Your task to perform on an android device: show emergency info Image 0: 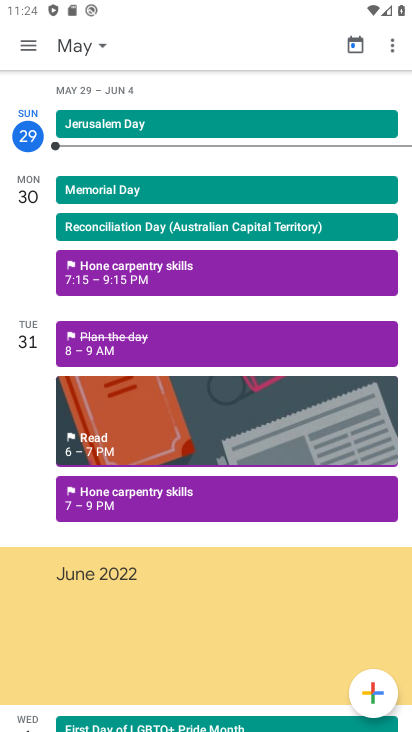
Step 0: press home button
Your task to perform on an android device: show emergency info Image 1: 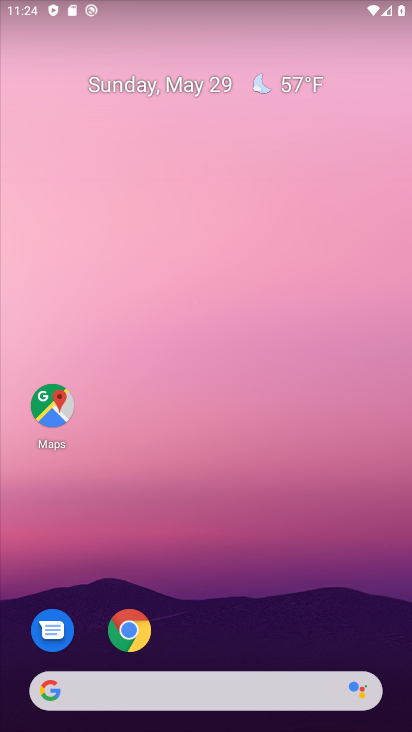
Step 1: drag from (254, 709) to (221, 151)
Your task to perform on an android device: show emergency info Image 2: 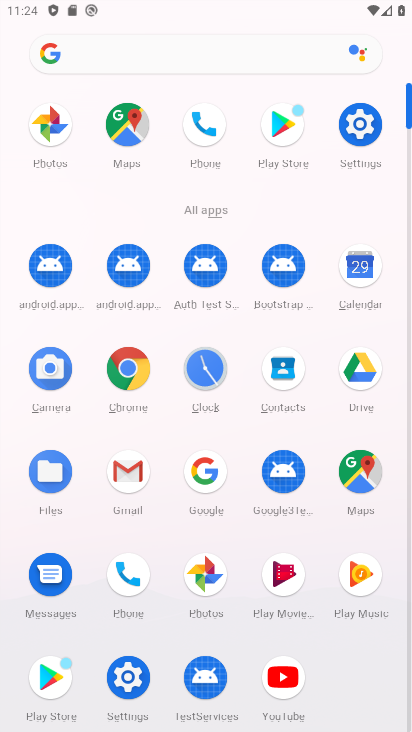
Step 2: click (339, 123)
Your task to perform on an android device: show emergency info Image 3: 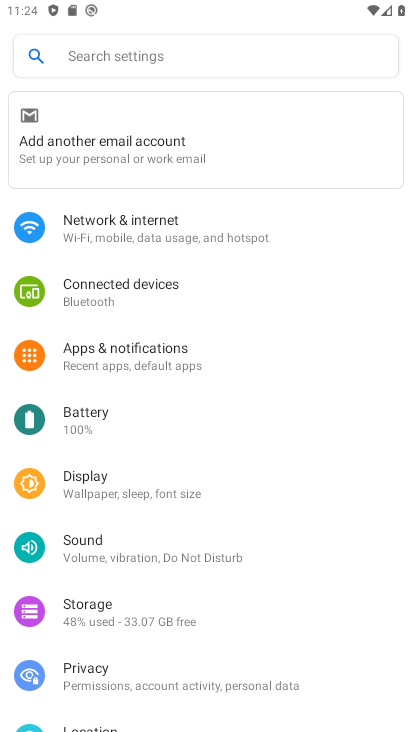
Step 3: click (108, 46)
Your task to perform on an android device: show emergency info Image 4: 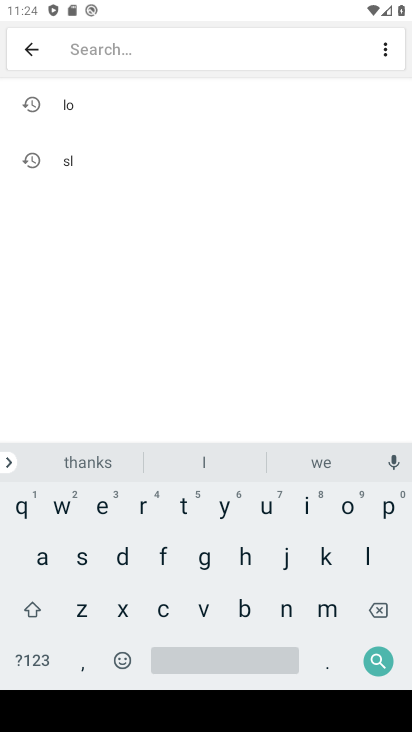
Step 4: click (101, 514)
Your task to perform on an android device: show emergency info Image 5: 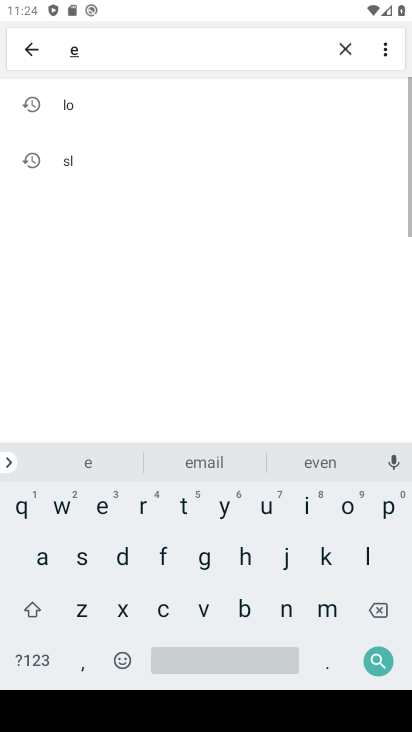
Step 5: click (322, 600)
Your task to perform on an android device: show emergency info Image 6: 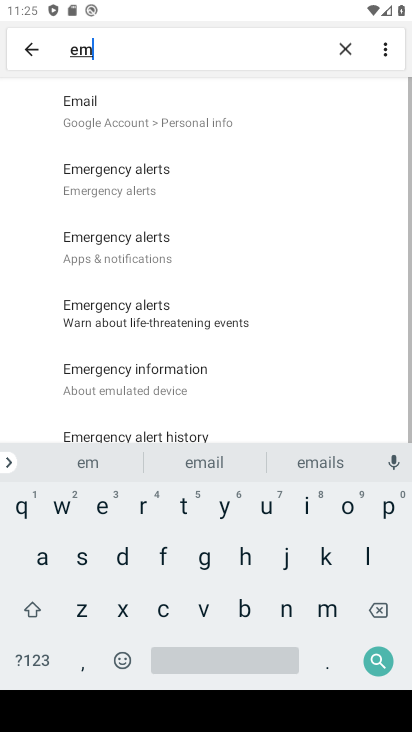
Step 6: click (102, 511)
Your task to perform on an android device: show emergency info Image 7: 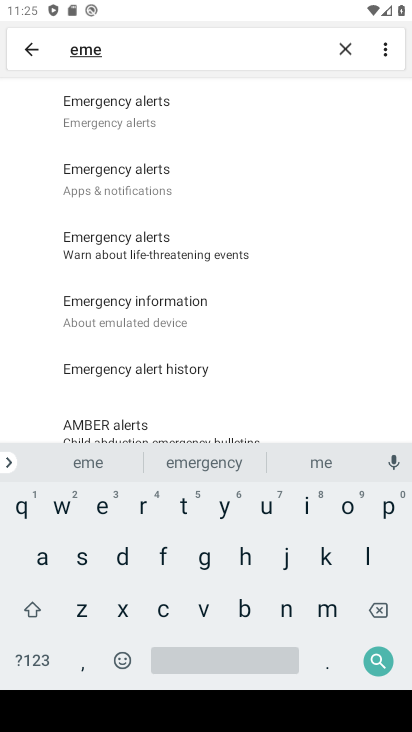
Step 7: click (212, 467)
Your task to perform on an android device: show emergency info Image 8: 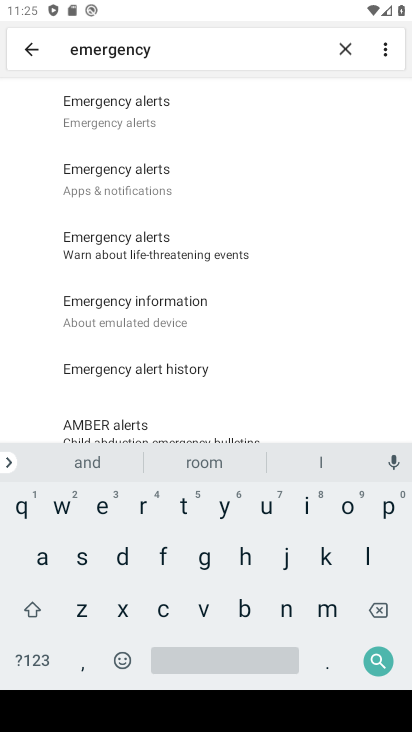
Step 8: click (308, 507)
Your task to perform on an android device: show emergency info Image 9: 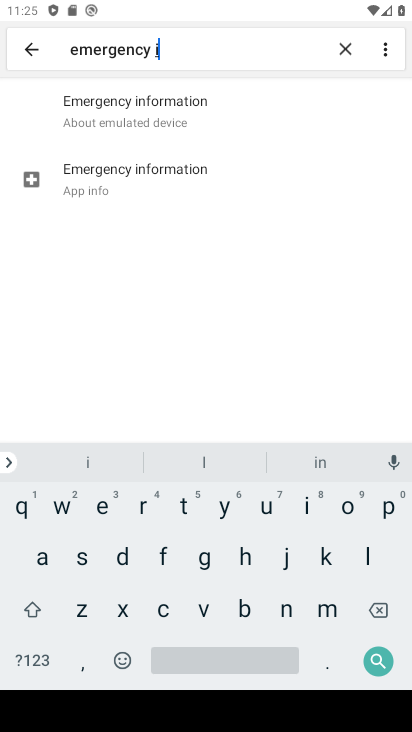
Step 9: click (291, 604)
Your task to perform on an android device: show emergency info Image 10: 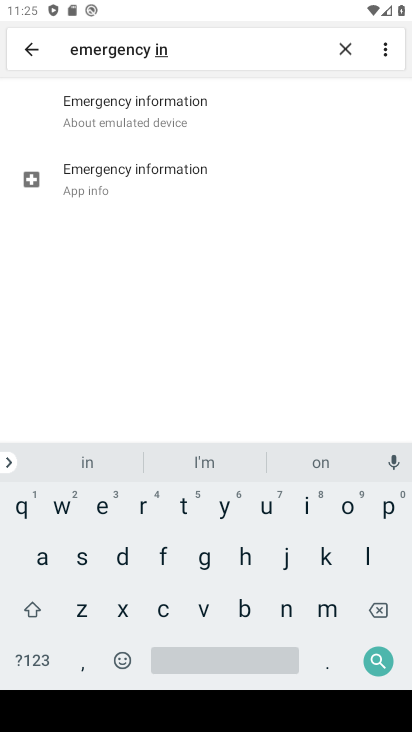
Step 10: click (185, 108)
Your task to perform on an android device: show emergency info Image 11: 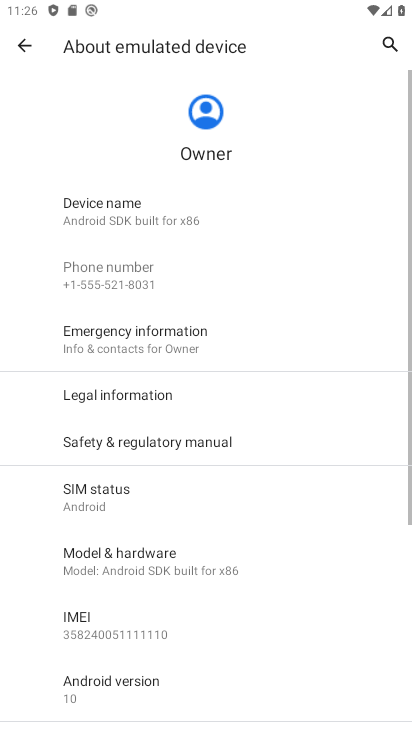
Step 11: click (153, 348)
Your task to perform on an android device: show emergency info Image 12: 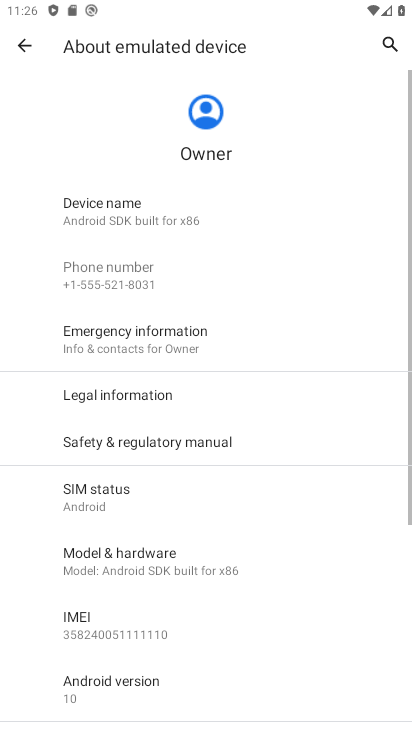
Step 12: task complete